Your task to perform on an android device: Open Wikipedia Image 0: 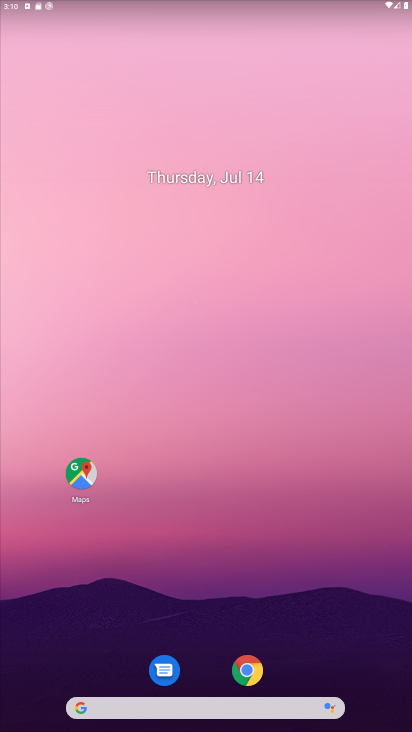
Step 0: click (255, 44)
Your task to perform on an android device: Open Wikipedia Image 1: 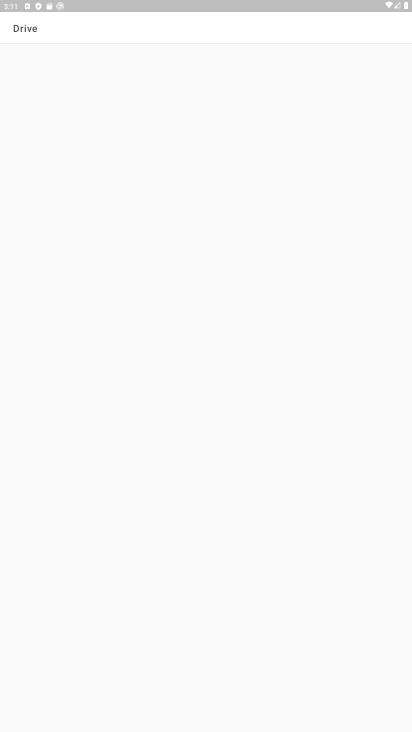
Step 1: press home button
Your task to perform on an android device: Open Wikipedia Image 2: 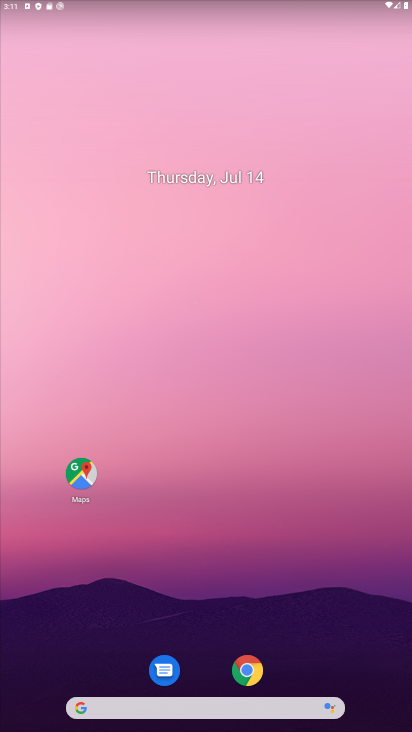
Step 2: click (246, 682)
Your task to perform on an android device: Open Wikipedia Image 3: 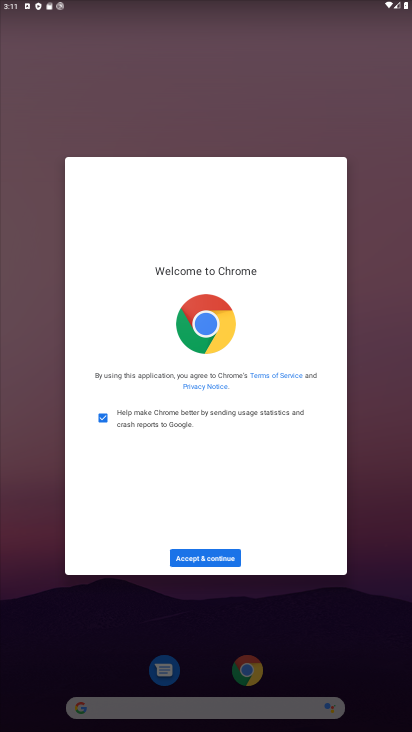
Step 3: click (195, 561)
Your task to perform on an android device: Open Wikipedia Image 4: 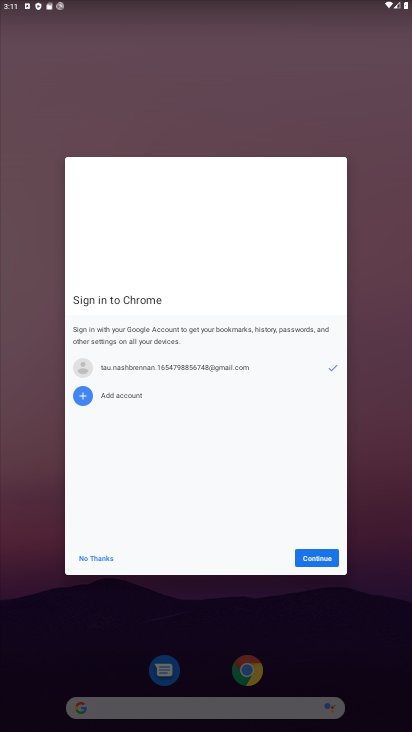
Step 4: click (313, 561)
Your task to perform on an android device: Open Wikipedia Image 5: 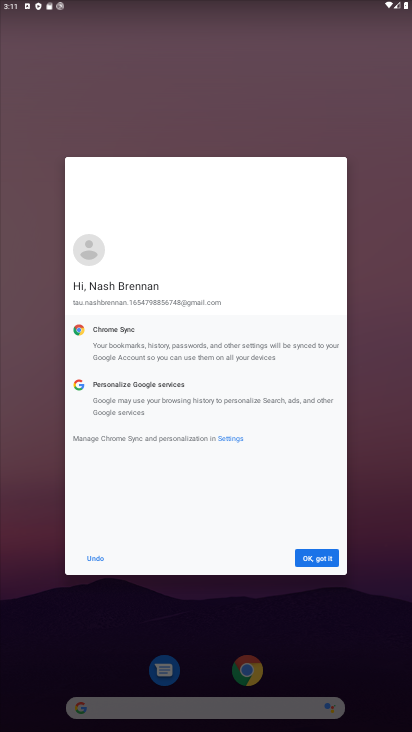
Step 5: click (313, 561)
Your task to perform on an android device: Open Wikipedia Image 6: 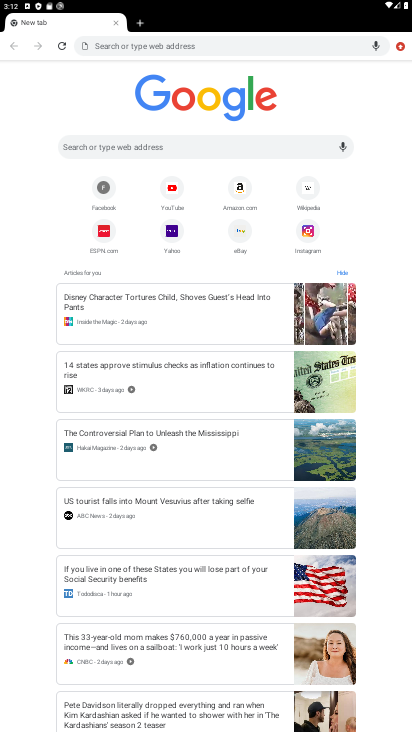
Step 6: click (316, 181)
Your task to perform on an android device: Open Wikipedia Image 7: 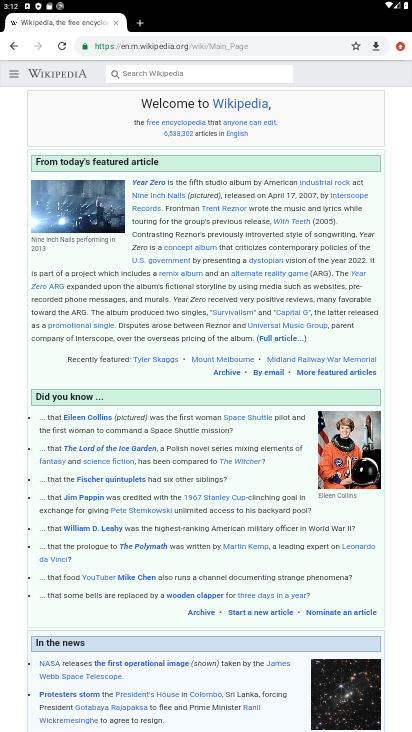
Step 7: task complete